Your task to perform on an android device: Search for seafood restaurants on Google Maps Image 0: 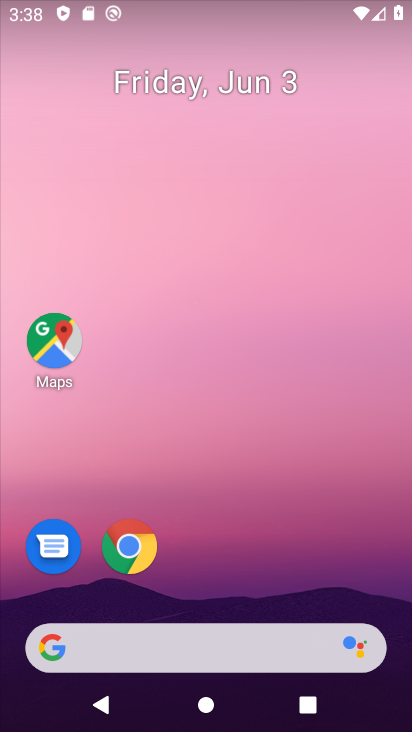
Step 0: click (62, 337)
Your task to perform on an android device: Search for seafood restaurants on Google Maps Image 1: 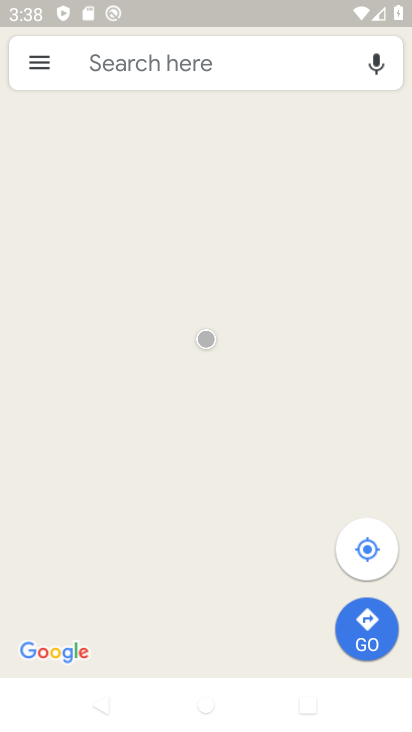
Step 1: click (140, 57)
Your task to perform on an android device: Search for seafood restaurants on Google Maps Image 2: 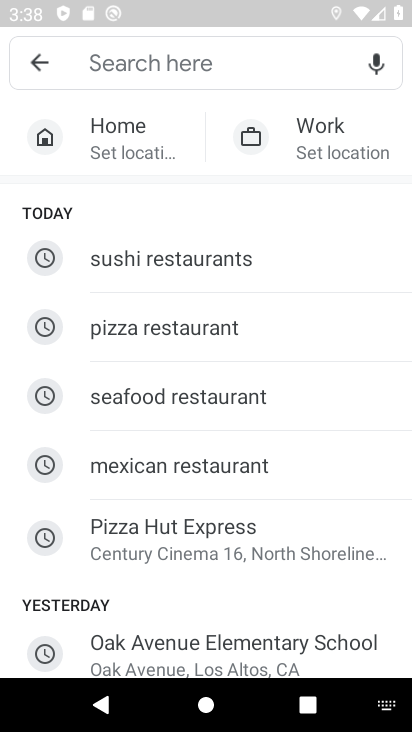
Step 2: click (177, 387)
Your task to perform on an android device: Search for seafood restaurants on Google Maps Image 3: 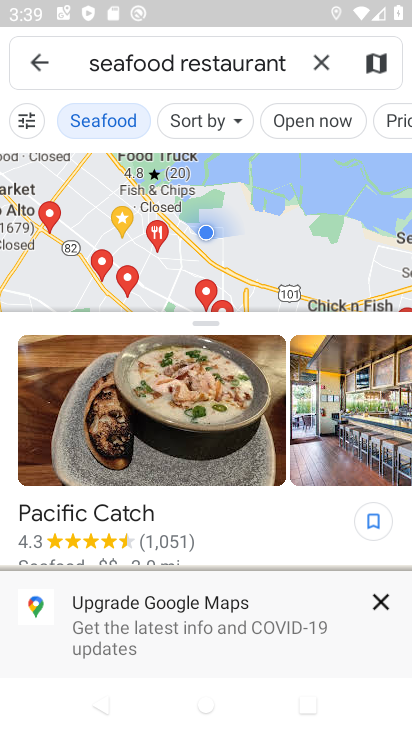
Step 3: task complete